Your task to perform on an android device: open sync settings in chrome Image 0: 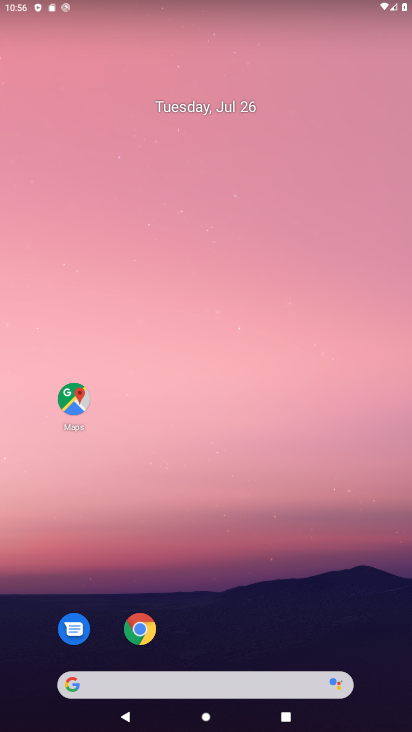
Step 0: click (138, 631)
Your task to perform on an android device: open sync settings in chrome Image 1: 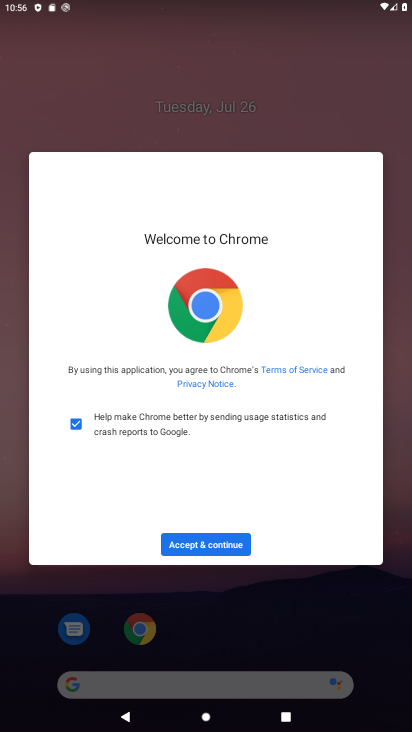
Step 1: click (242, 553)
Your task to perform on an android device: open sync settings in chrome Image 2: 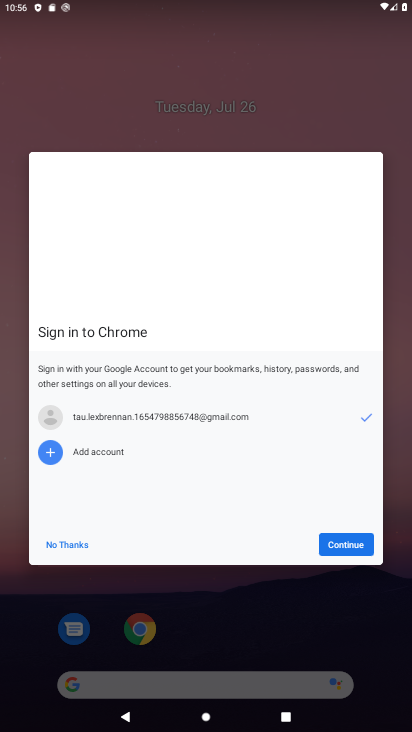
Step 2: click (341, 547)
Your task to perform on an android device: open sync settings in chrome Image 3: 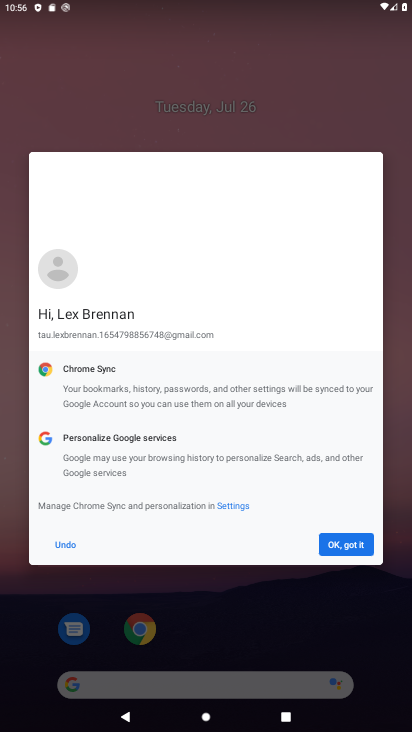
Step 3: click (341, 547)
Your task to perform on an android device: open sync settings in chrome Image 4: 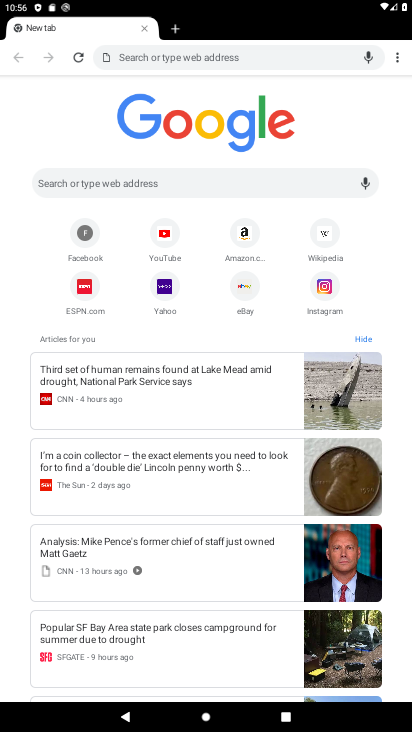
Step 4: click (396, 67)
Your task to perform on an android device: open sync settings in chrome Image 5: 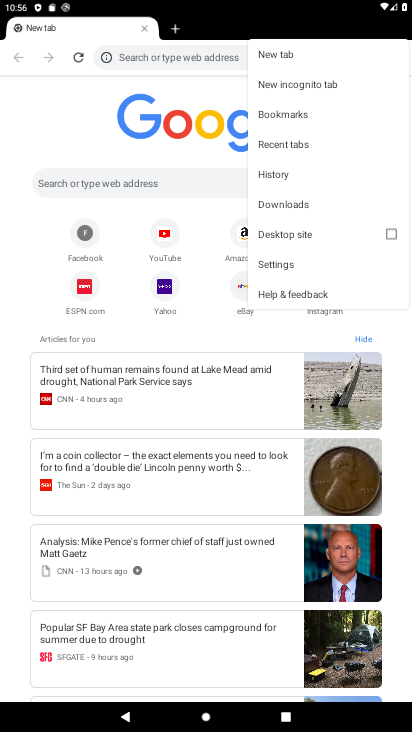
Step 5: click (294, 264)
Your task to perform on an android device: open sync settings in chrome Image 6: 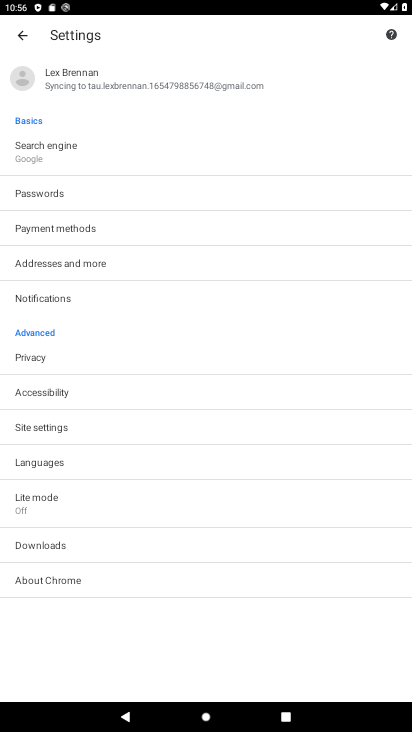
Step 6: click (97, 83)
Your task to perform on an android device: open sync settings in chrome Image 7: 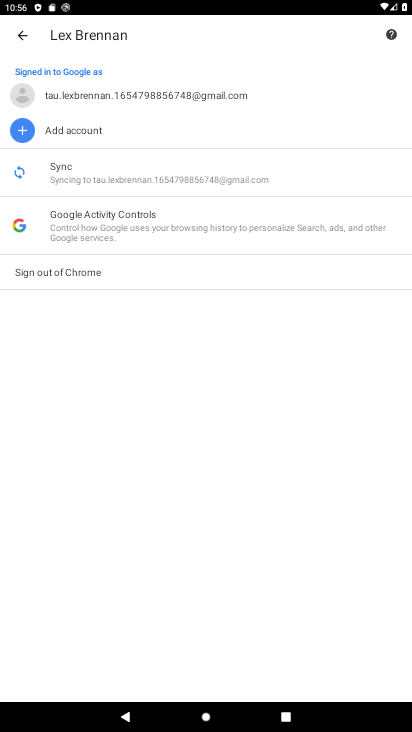
Step 7: click (99, 187)
Your task to perform on an android device: open sync settings in chrome Image 8: 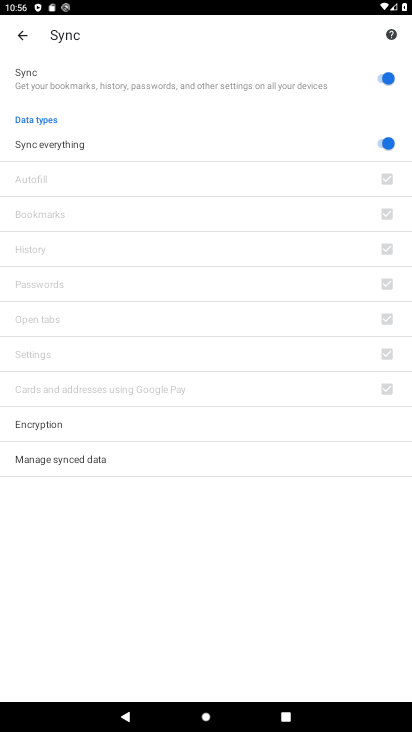
Step 8: task complete